Your task to perform on an android device: Go to privacy settings Image 0: 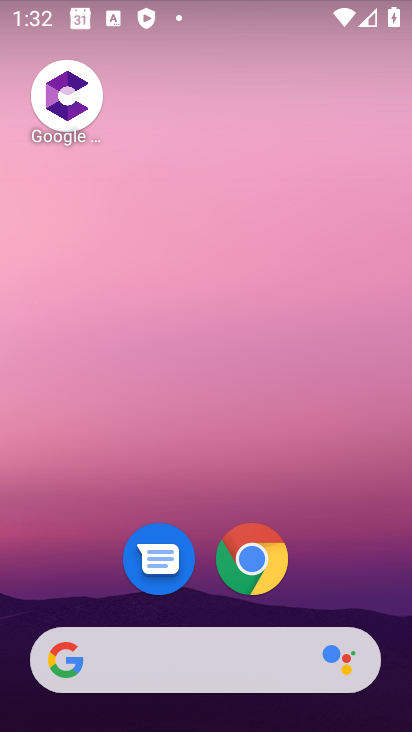
Step 0: drag from (90, 574) to (336, 143)
Your task to perform on an android device: Go to privacy settings Image 1: 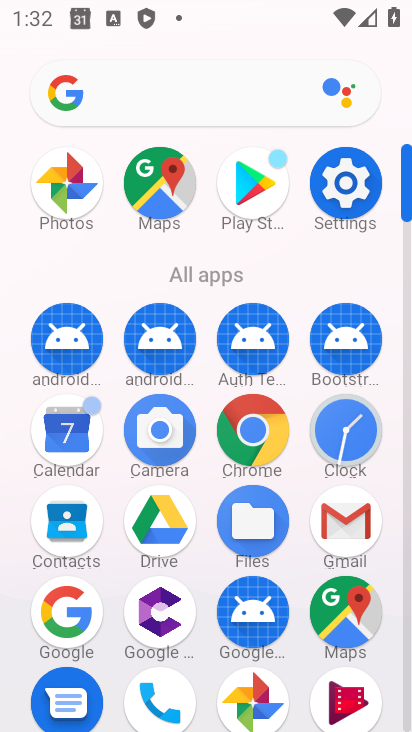
Step 1: click (342, 186)
Your task to perform on an android device: Go to privacy settings Image 2: 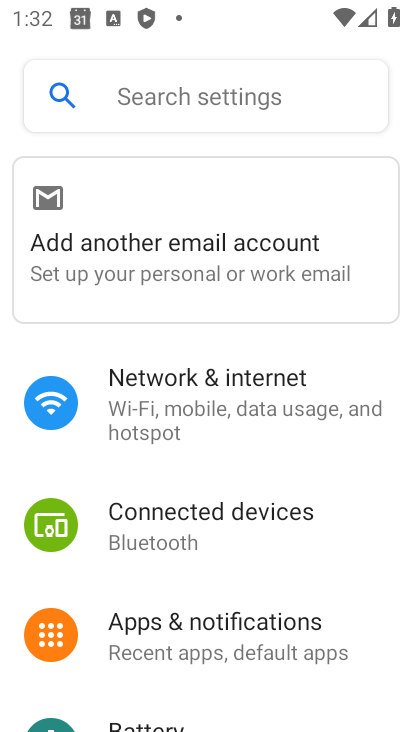
Step 2: drag from (2, 605) to (161, 210)
Your task to perform on an android device: Go to privacy settings Image 3: 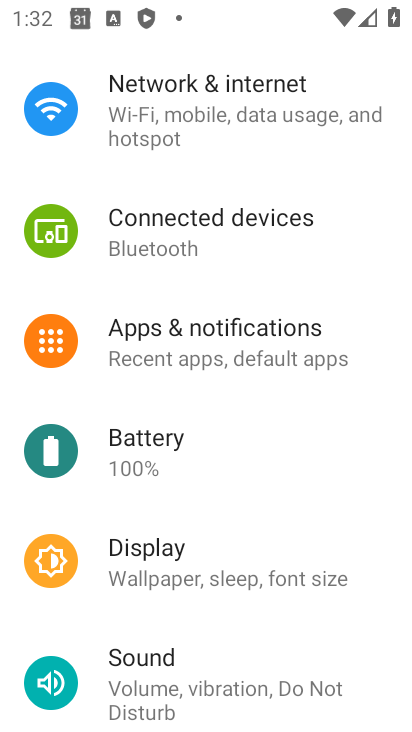
Step 3: drag from (21, 545) to (172, 240)
Your task to perform on an android device: Go to privacy settings Image 4: 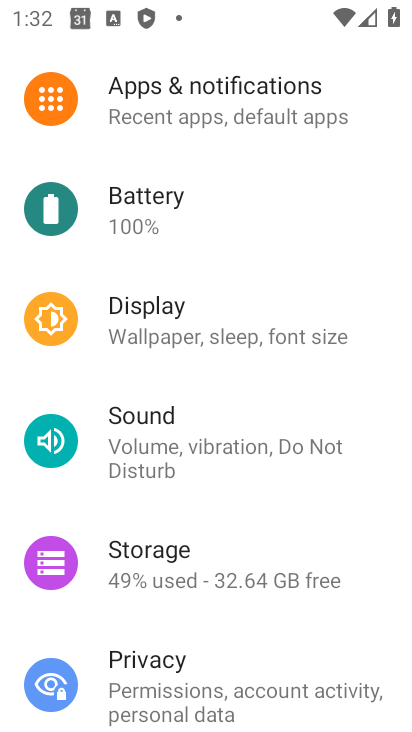
Step 4: click (65, 689)
Your task to perform on an android device: Go to privacy settings Image 5: 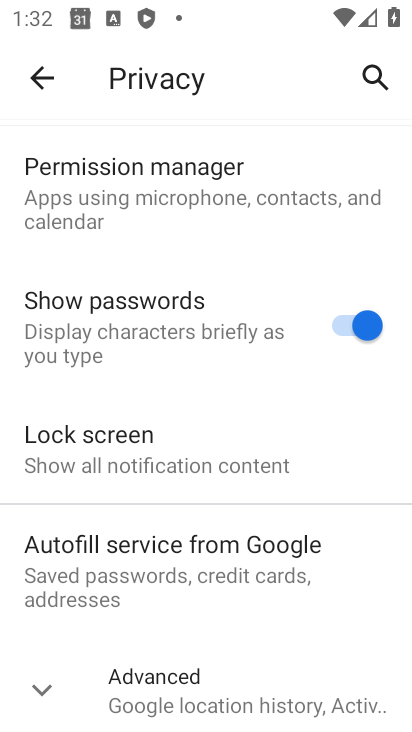
Step 5: task complete